Your task to perform on an android device: What's the weather going to be this weekend? Image 0: 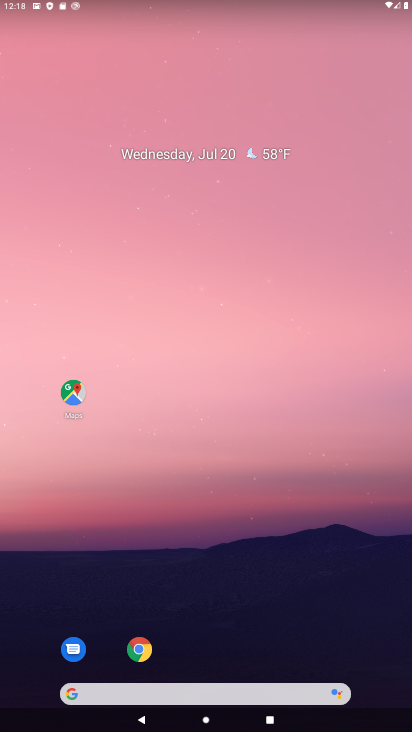
Step 0: drag from (214, 671) to (218, 106)
Your task to perform on an android device: What's the weather going to be this weekend? Image 1: 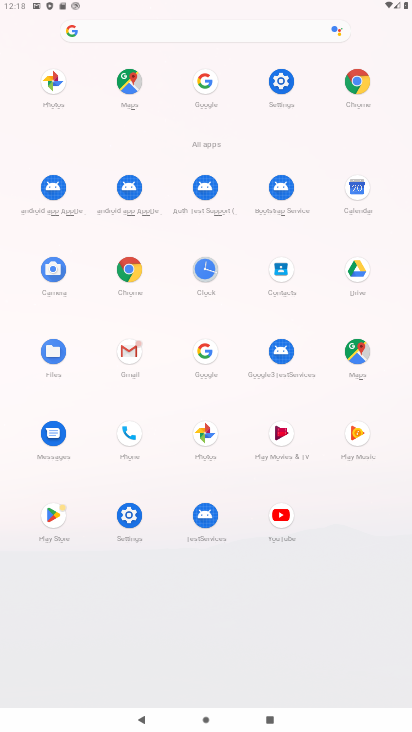
Step 1: click (206, 80)
Your task to perform on an android device: What's the weather going to be this weekend? Image 2: 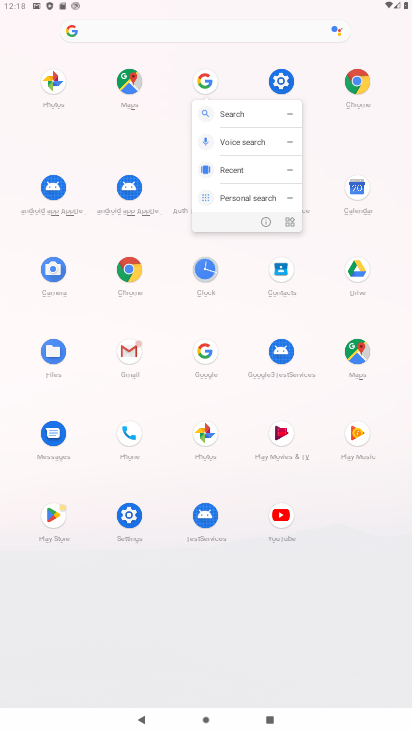
Step 2: click (206, 80)
Your task to perform on an android device: What's the weather going to be this weekend? Image 3: 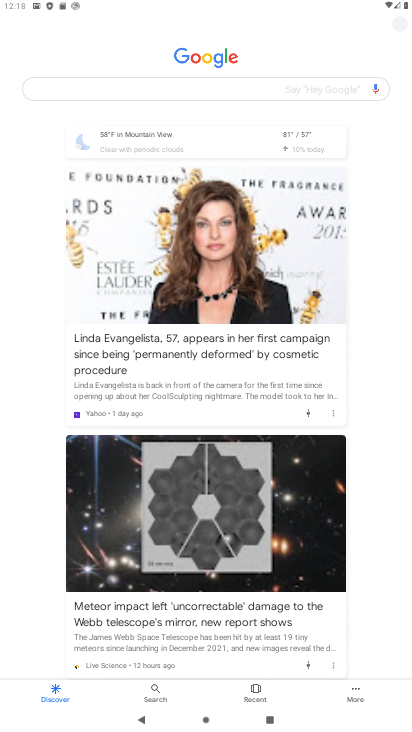
Step 3: click (137, 82)
Your task to perform on an android device: What's the weather going to be this weekend? Image 4: 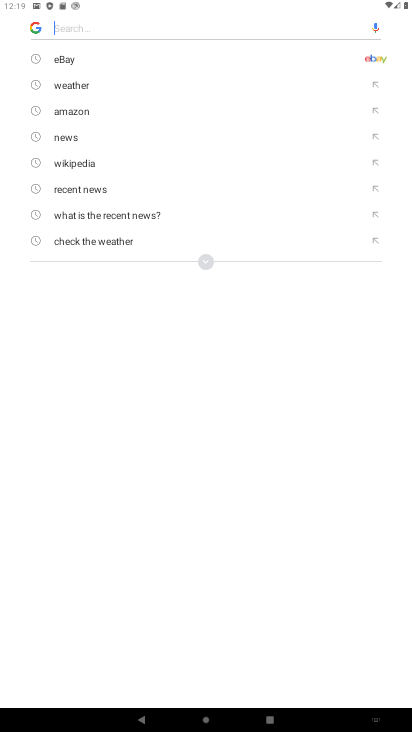
Step 4: type "whats the weather going to be this weekend"
Your task to perform on an android device: What's the weather going to be this weekend? Image 5: 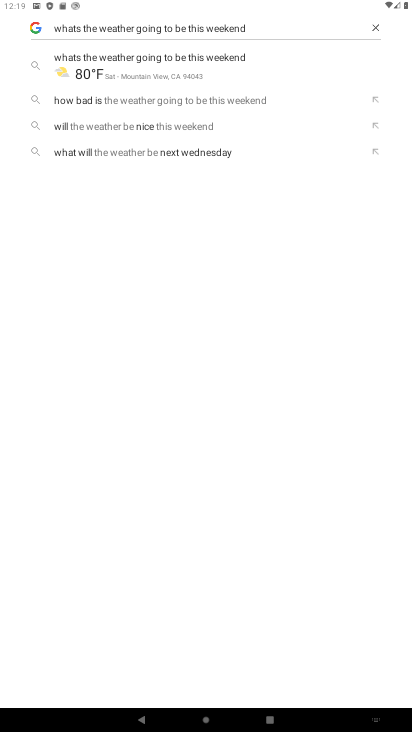
Step 5: click (190, 67)
Your task to perform on an android device: What's the weather going to be this weekend? Image 6: 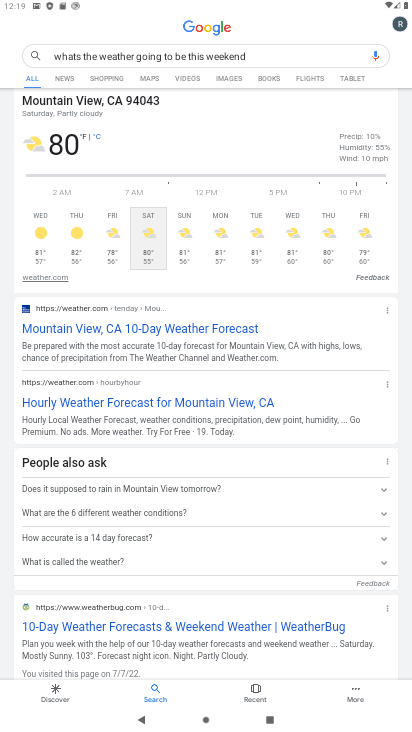
Step 6: task complete